Your task to perform on an android device: install app "Life360: Find Family & Friends" Image 0: 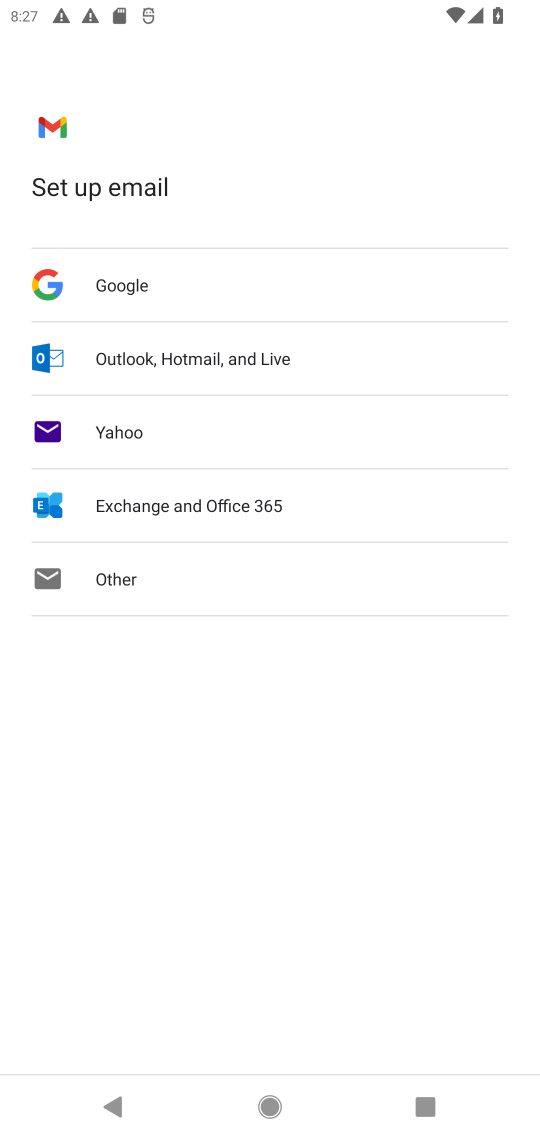
Step 0: press home button
Your task to perform on an android device: install app "Life360: Find Family & Friends" Image 1: 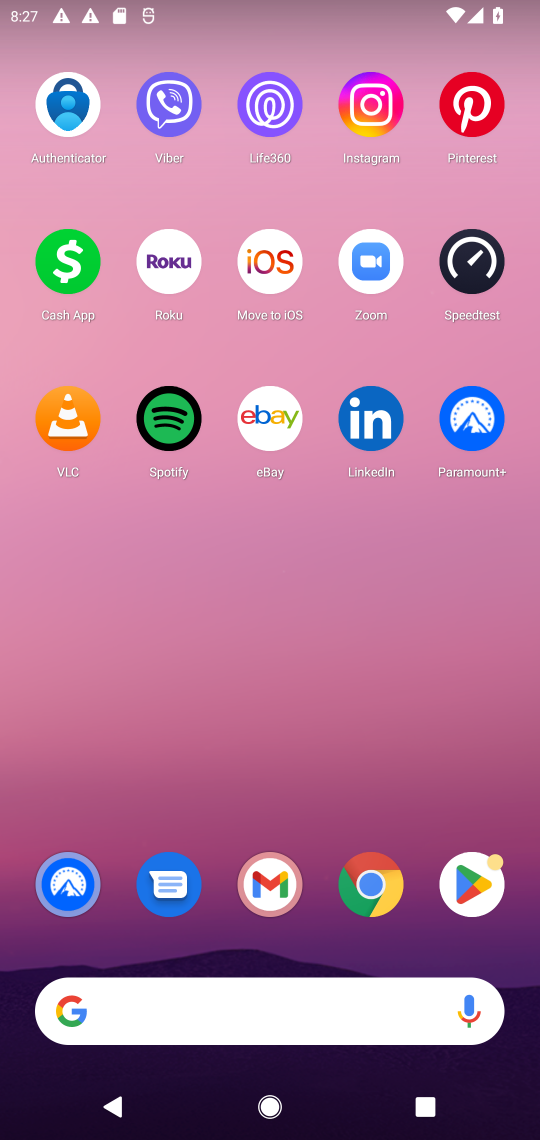
Step 1: click (464, 868)
Your task to perform on an android device: install app "Life360: Find Family & Friends" Image 2: 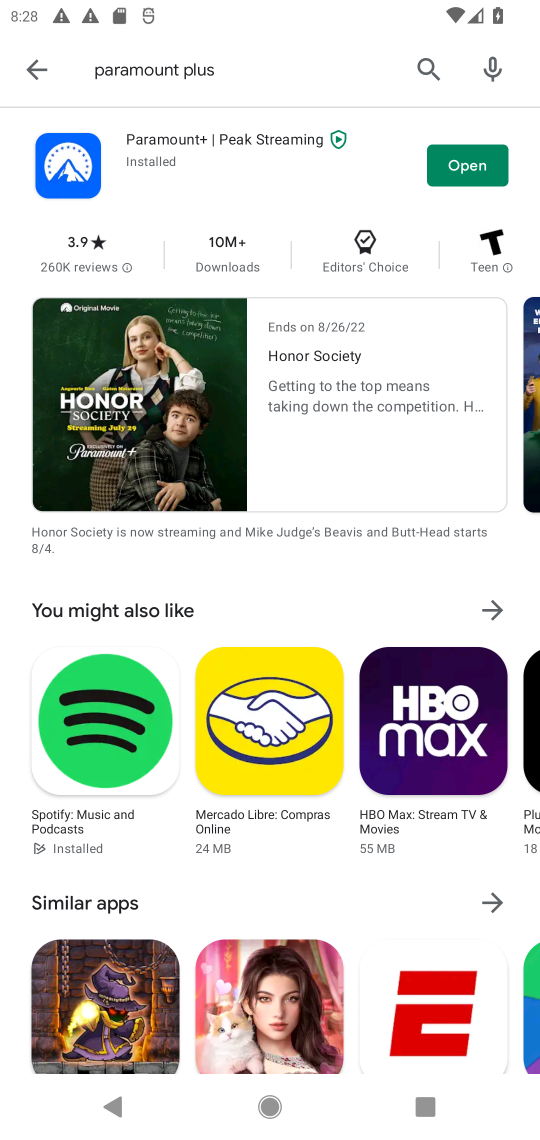
Step 2: click (434, 51)
Your task to perform on an android device: install app "Life360: Find Family & Friends" Image 3: 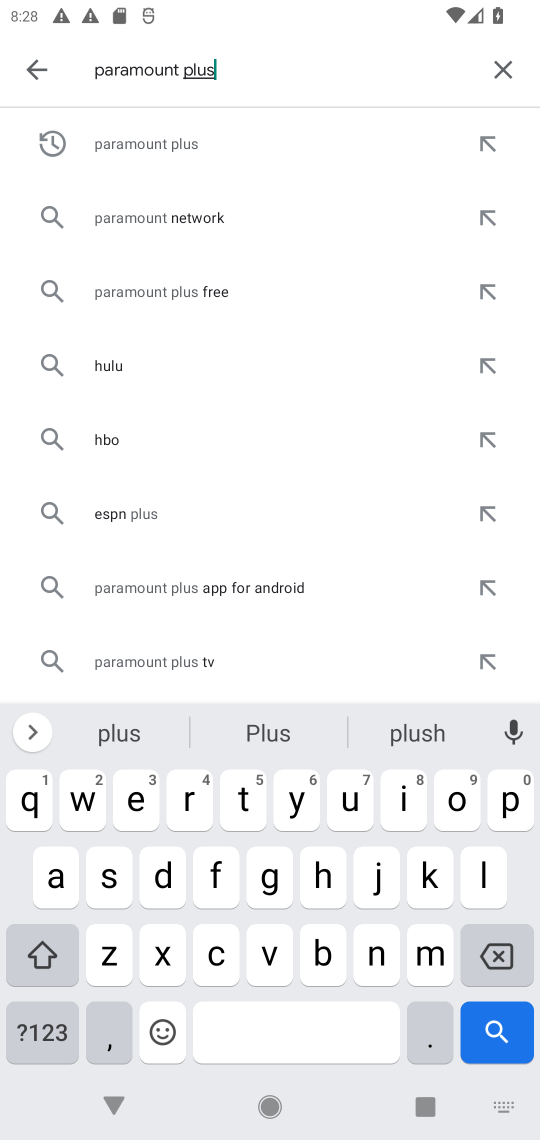
Step 3: click (509, 65)
Your task to perform on an android device: install app "Life360: Find Family & Friends" Image 4: 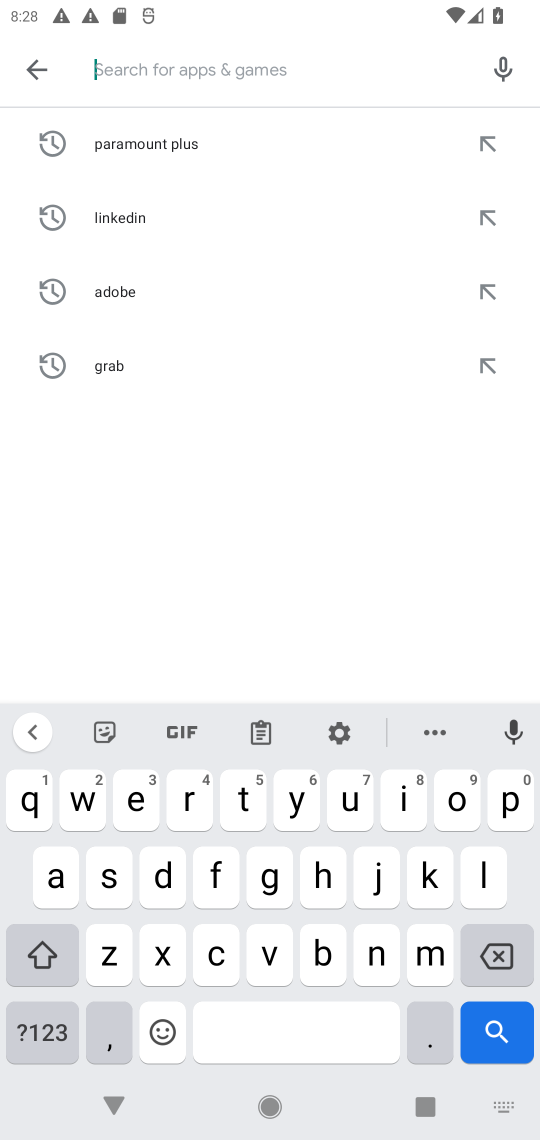
Step 4: click (477, 877)
Your task to perform on an android device: install app "Life360: Find Family & Friends" Image 5: 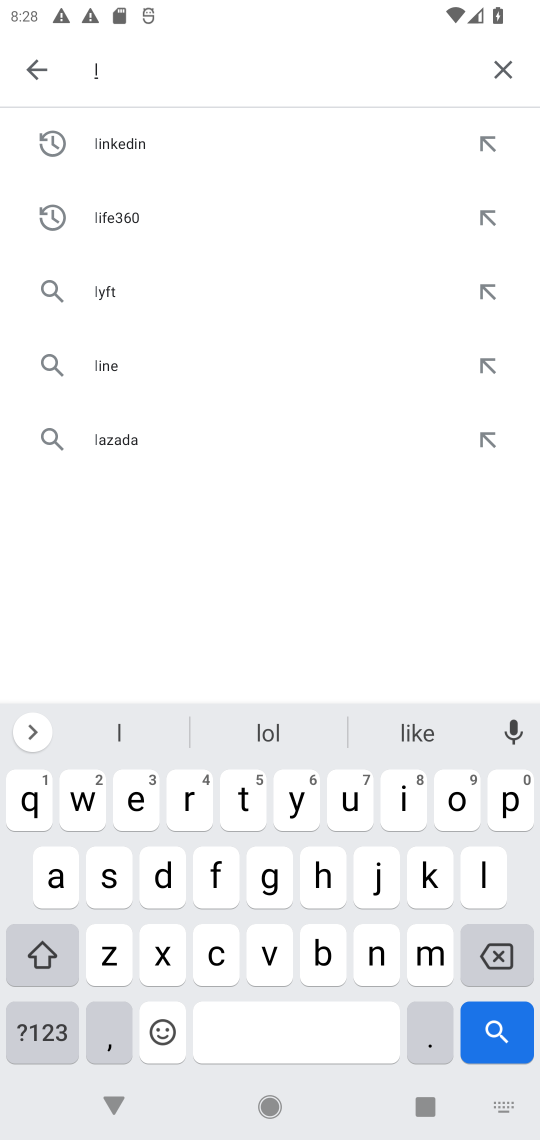
Step 5: click (401, 796)
Your task to perform on an android device: install app "Life360: Find Family & Friends" Image 6: 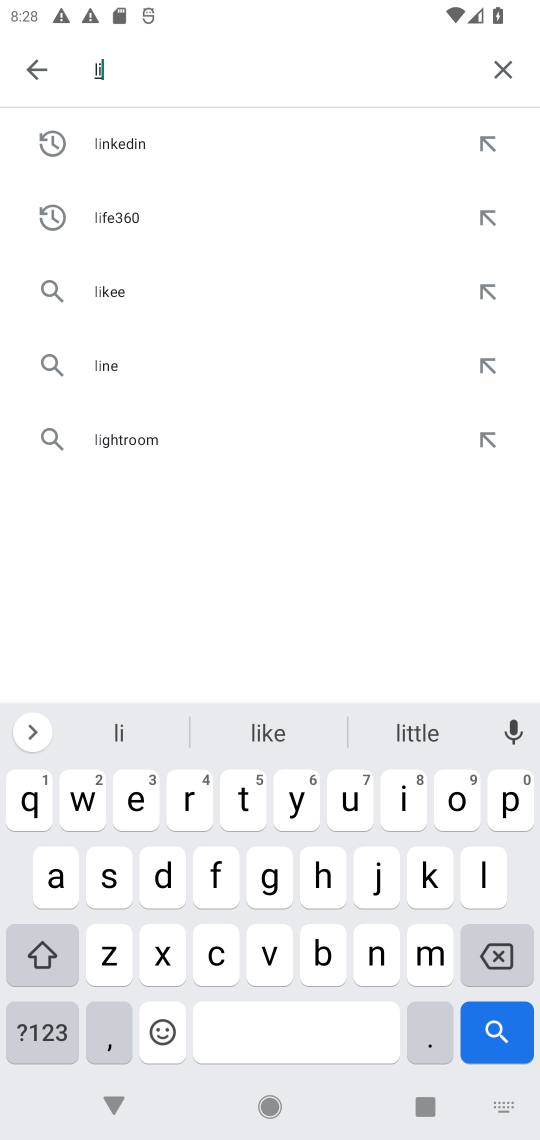
Step 6: click (117, 207)
Your task to perform on an android device: install app "Life360: Find Family & Friends" Image 7: 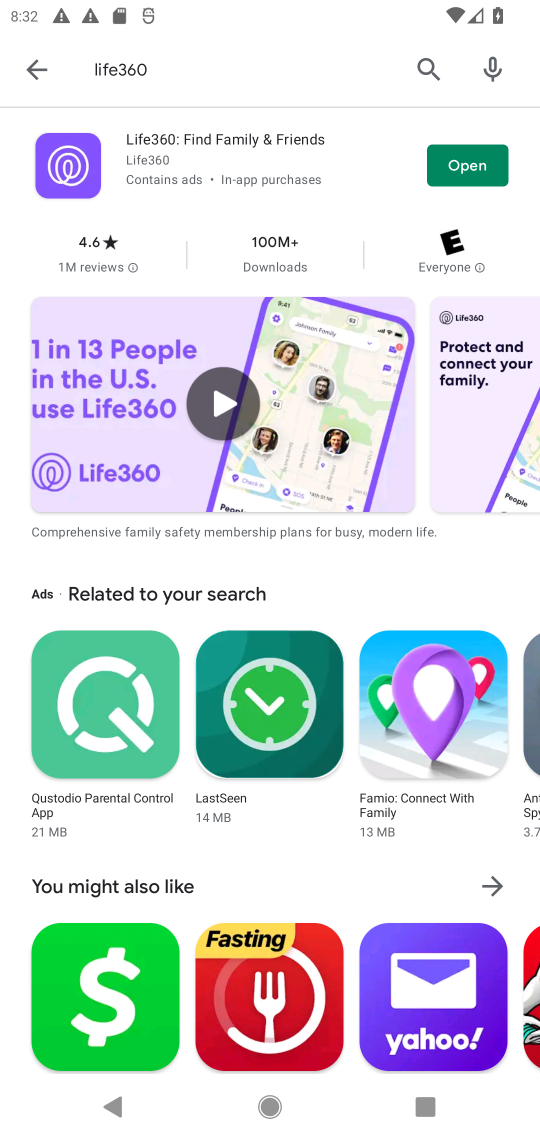
Step 7: task complete